Your task to perform on an android device: turn off notifications settings in the gmail app Image 0: 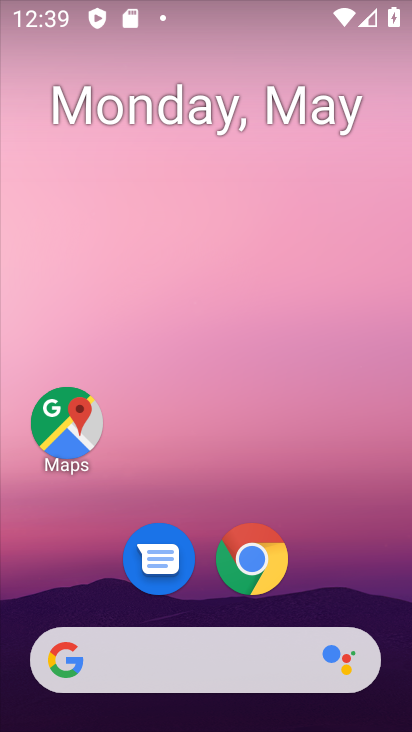
Step 0: drag from (198, 727) to (202, 29)
Your task to perform on an android device: turn off notifications settings in the gmail app Image 1: 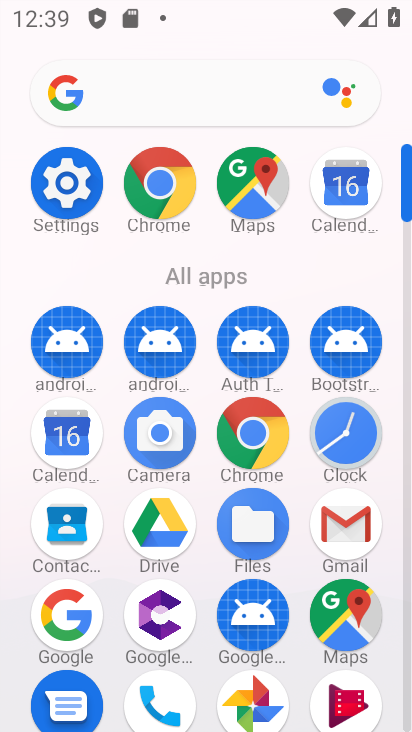
Step 1: click (339, 518)
Your task to perform on an android device: turn off notifications settings in the gmail app Image 2: 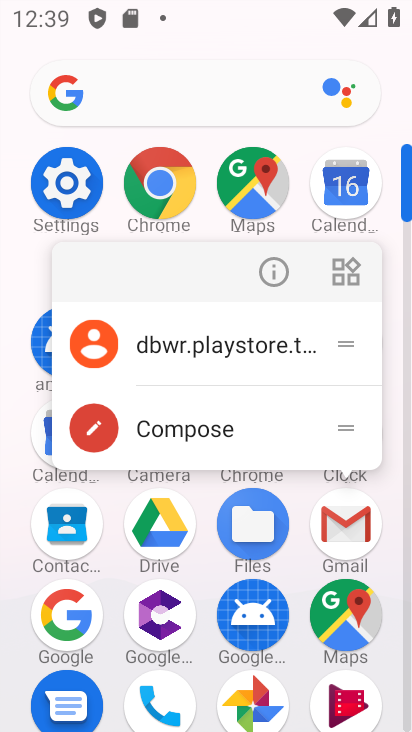
Step 2: click (274, 268)
Your task to perform on an android device: turn off notifications settings in the gmail app Image 3: 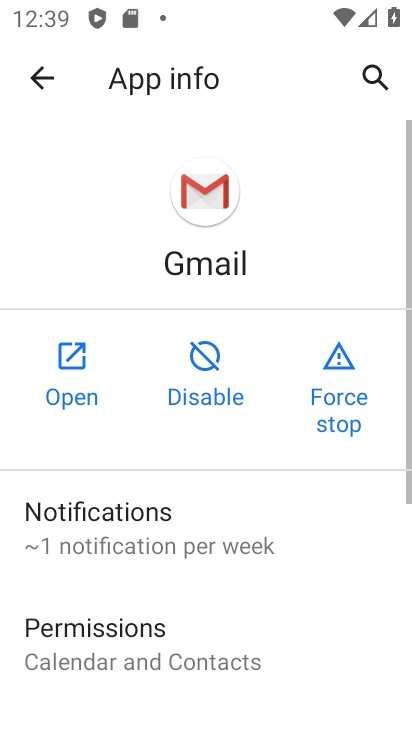
Step 3: click (202, 531)
Your task to perform on an android device: turn off notifications settings in the gmail app Image 4: 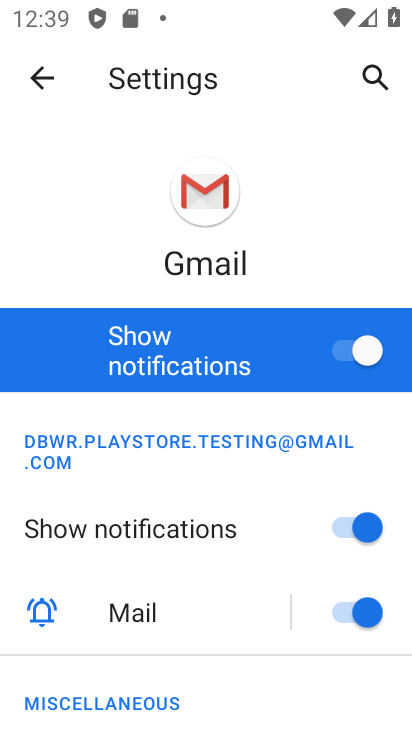
Step 4: click (375, 353)
Your task to perform on an android device: turn off notifications settings in the gmail app Image 5: 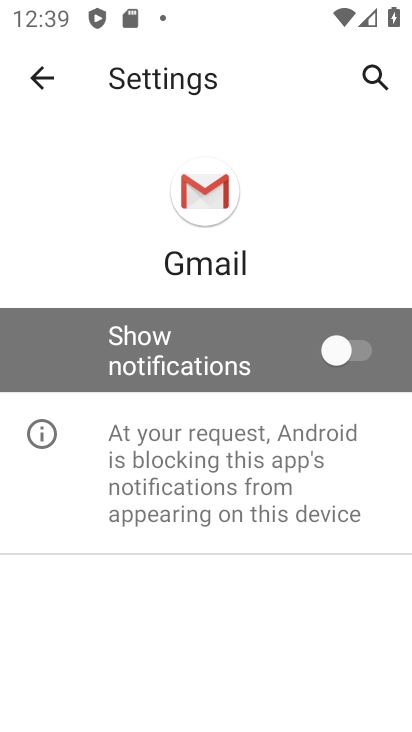
Step 5: task complete